Your task to perform on an android device: check the backup settings in the google photos Image 0: 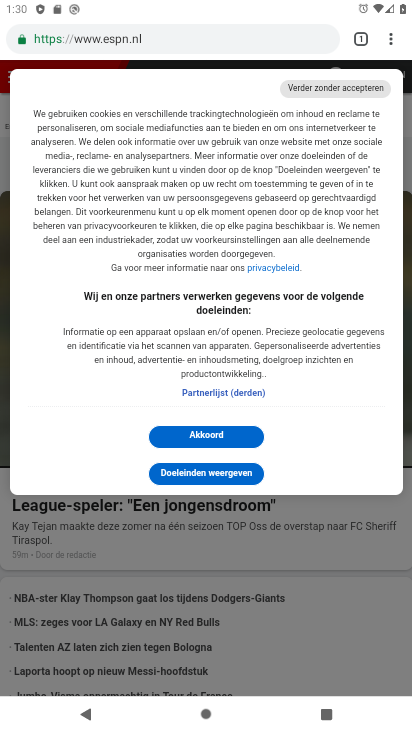
Step 0: press home button
Your task to perform on an android device: check the backup settings in the google photos Image 1: 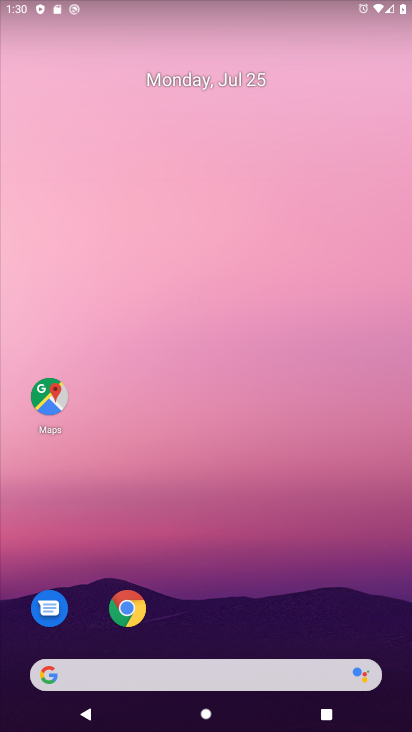
Step 1: click (272, 66)
Your task to perform on an android device: check the backup settings in the google photos Image 2: 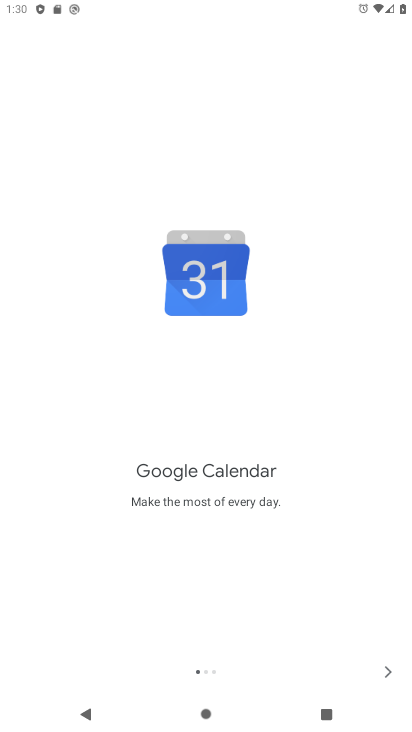
Step 2: press home button
Your task to perform on an android device: check the backup settings in the google photos Image 3: 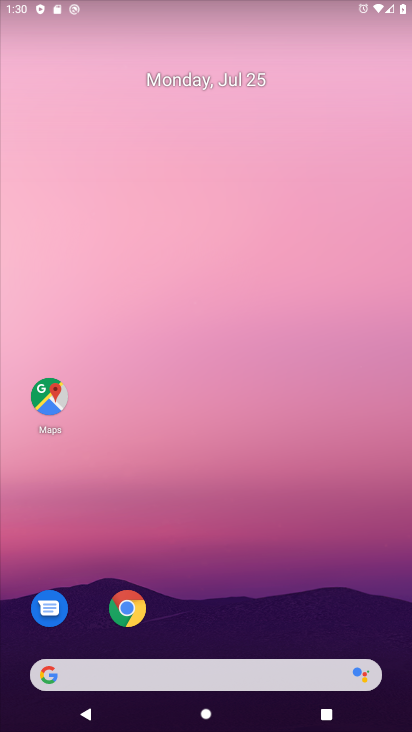
Step 3: drag from (305, 613) to (289, 23)
Your task to perform on an android device: check the backup settings in the google photos Image 4: 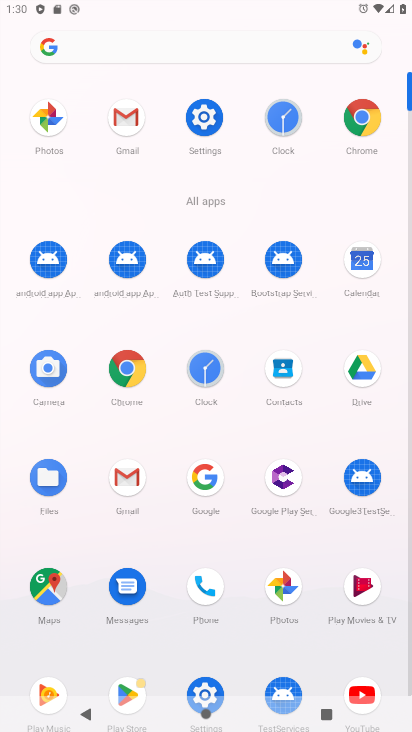
Step 4: click (287, 587)
Your task to perform on an android device: check the backup settings in the google photos Image 5: 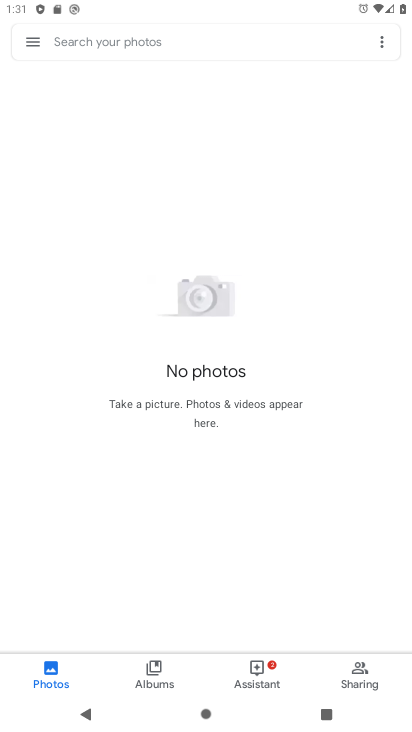
Step 5: click (36, 38)
Your task to perform on an android device: check the backup settings in the google photos Image 6: 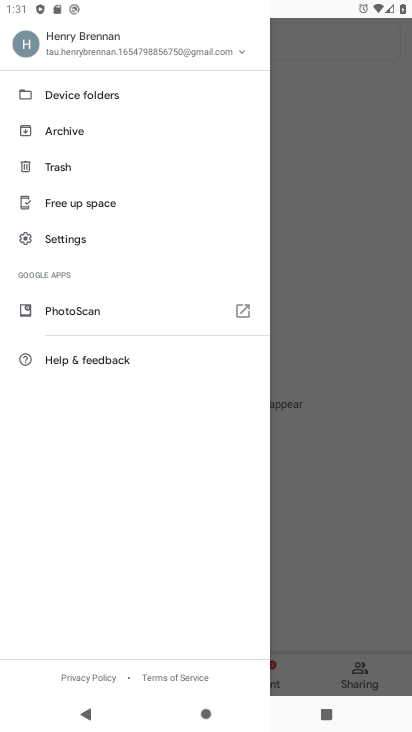
Step 6: click (67, 245)
Your task to perform on an android device: check the backup settings in the google photos Image 7: 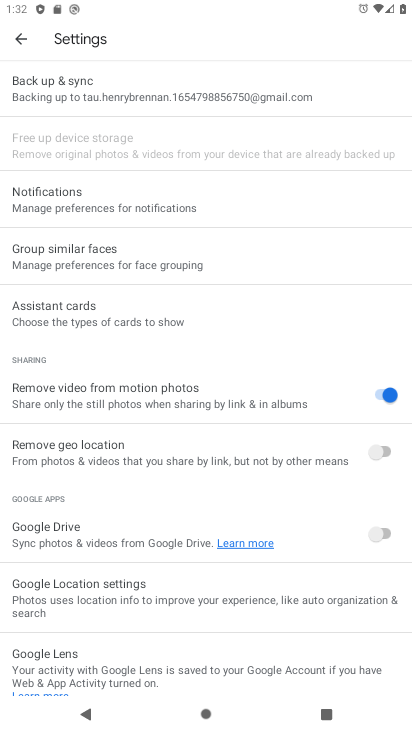
Step 7: click (75, 80)
Your task to perform on an android device: check the backup settings in the google photos Image 8: 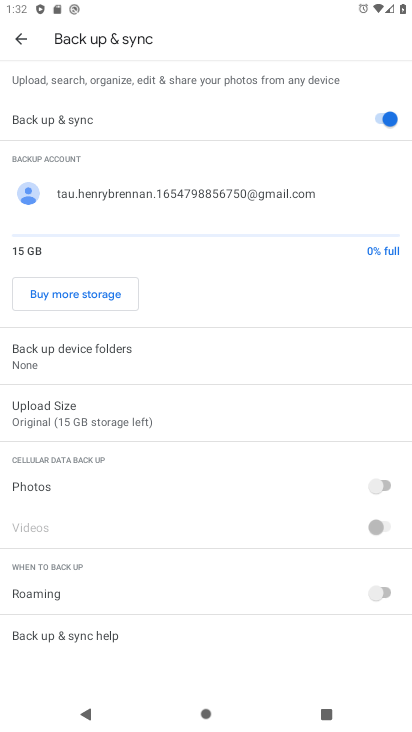
Step 8: task complete